Your task to perform on an android device: turn on notifications settings in the gmail app Image 0: 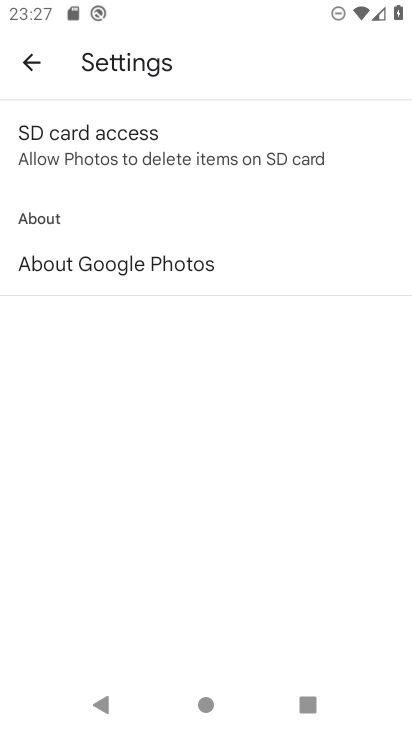
Step 0: press home button
Your task to perform on an android device: turn on notifications settings in the gmail app Image 1: 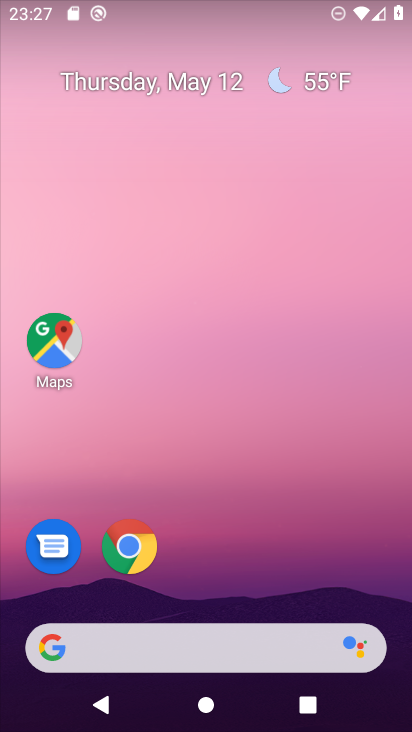
Step 1: drag from (198, 597) to (253, 173)
Your task to perform on an android device: turn on notifications settings in the gmail app Image 2: 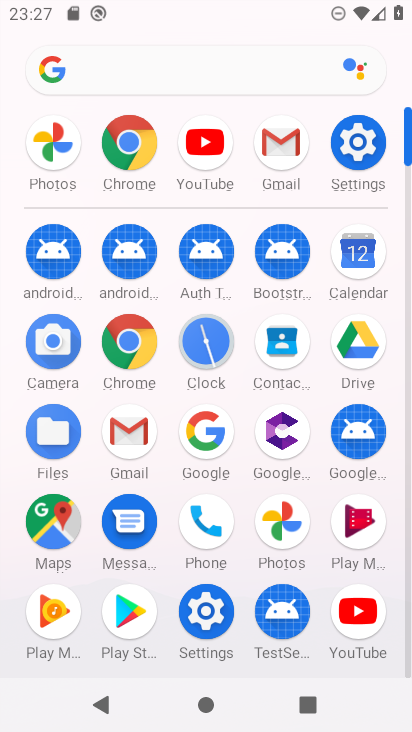
Step 2: click (140, 433)
Your task to perform on an android device: turn on notifications settings in the gmail app Image 3: 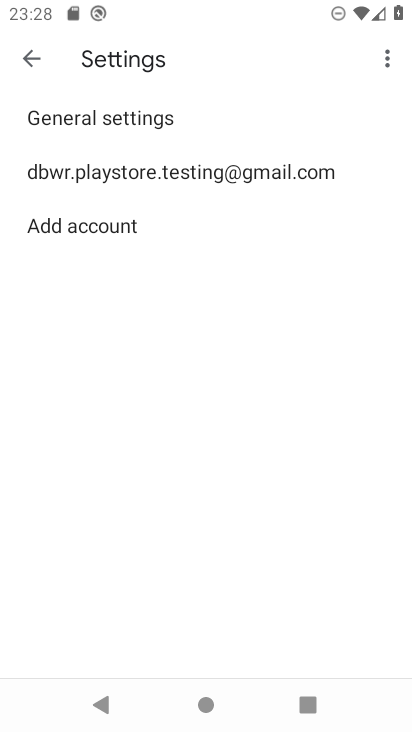
Step 3: task complete